Your task to perform on an android device: change the upload size in google photos Image 0: 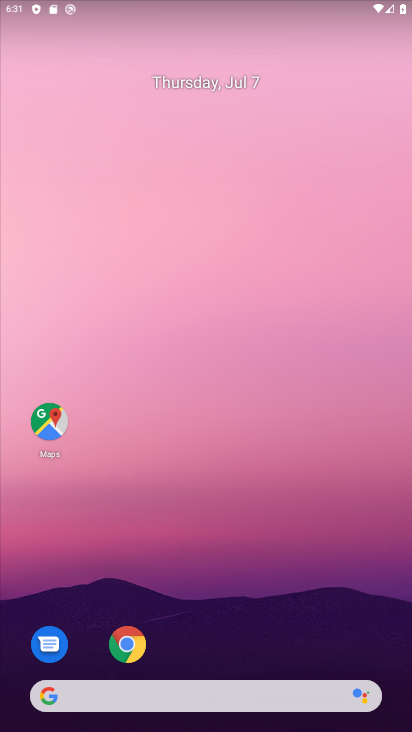
Step 0: drag from (217, 376) to (217, 27)
Your task to perform on an android device: change the upload size in google photos Image 1: 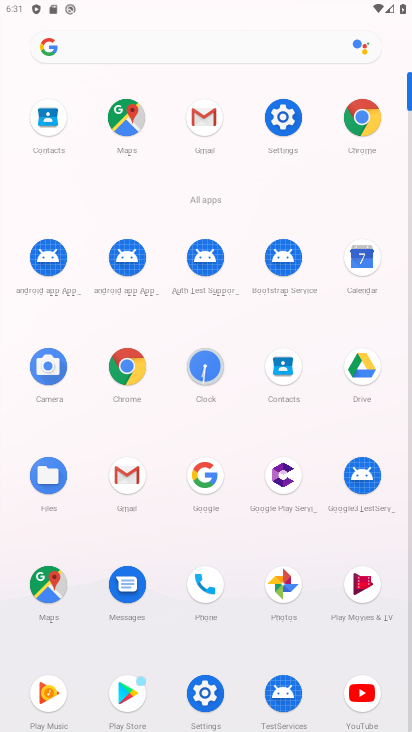
Step 1: click (282, 590)
Your task to perform on an android device: change the upload size in google photos Image 2: 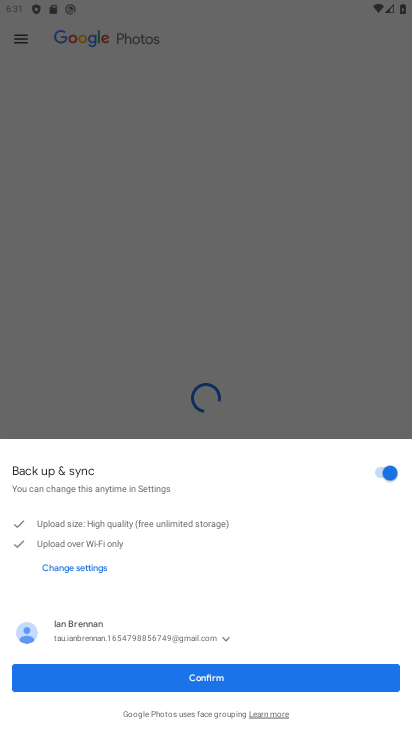
Step 2: click (188, 669)
Your task to perform on an android device: change the upload size in google photos Image 3: 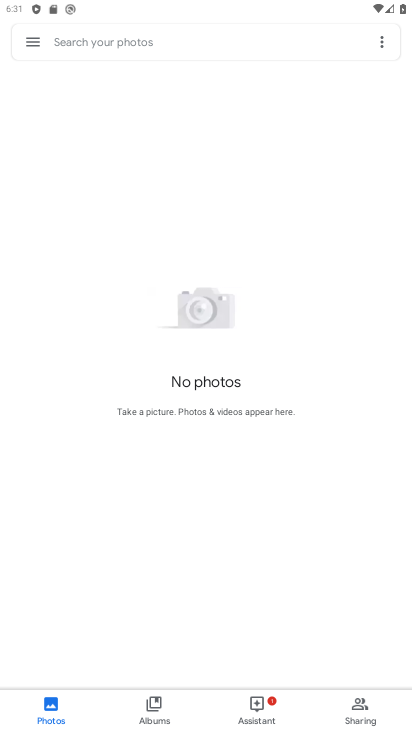
Step 3: click (33, 47)
Your task to perform on an android device: change the upload size in google photos Image 4: 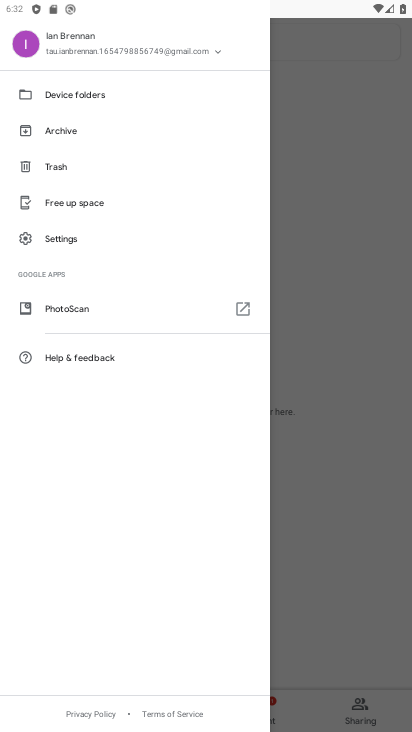
Step 4: click (61, 237)
Your task to perform on an android device: change the upload size in google photos Image 5: 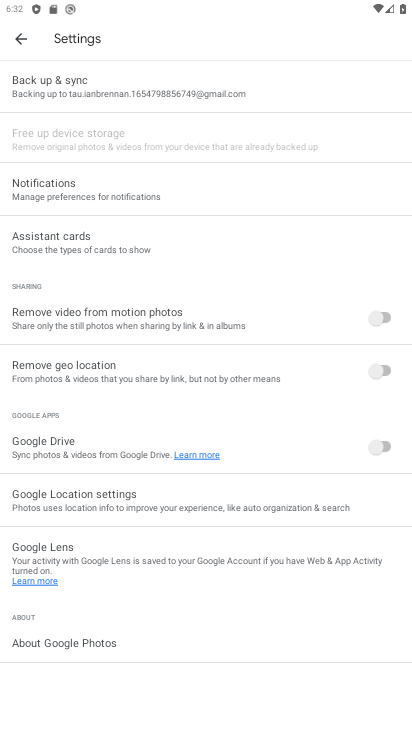
Step 5: click (132, 80)
Your task to perform on an android device: change the upload size in google photos Image 6: 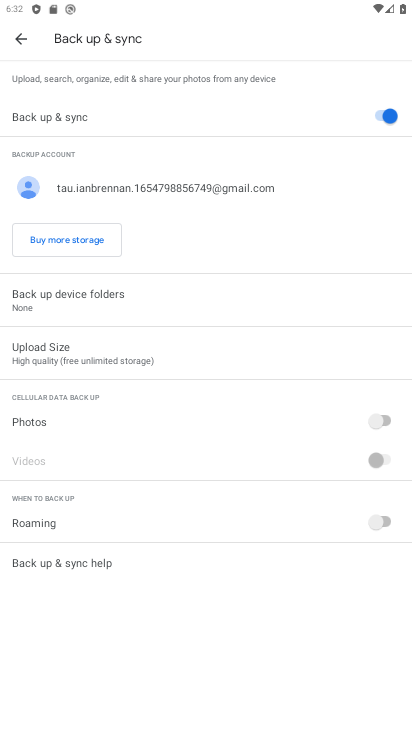
Step 6: click (62, 361)
Your task to perform on an android device: change the upload size in google photos Image 7: 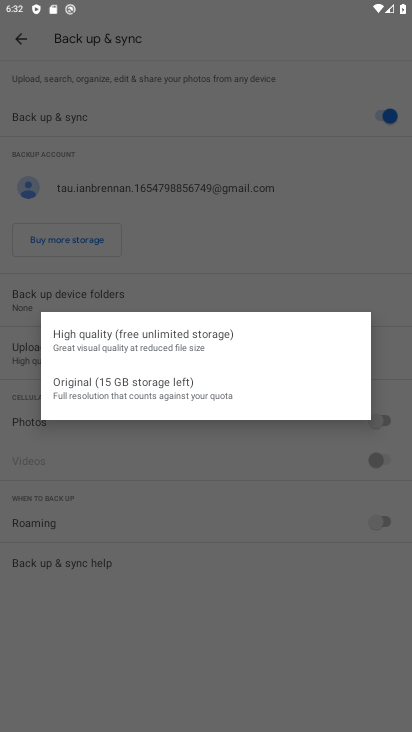
Step 7: click (96, 409)
Your task to perform on an android device: change the upload size in google photos Image 8: 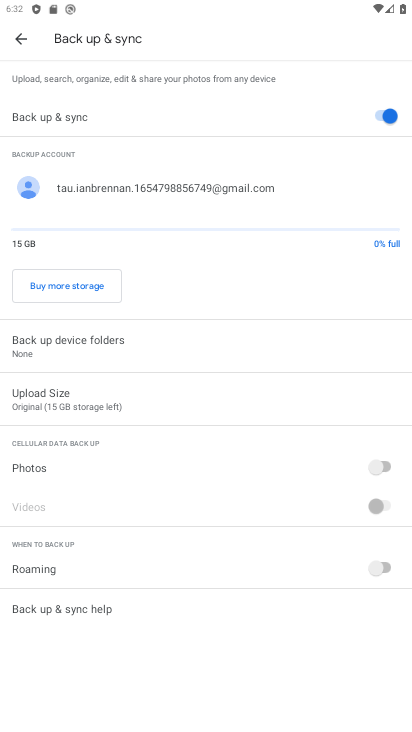
Step 8: task complete